Your task to perform on an android device: Go to Wikipedia Image 0: 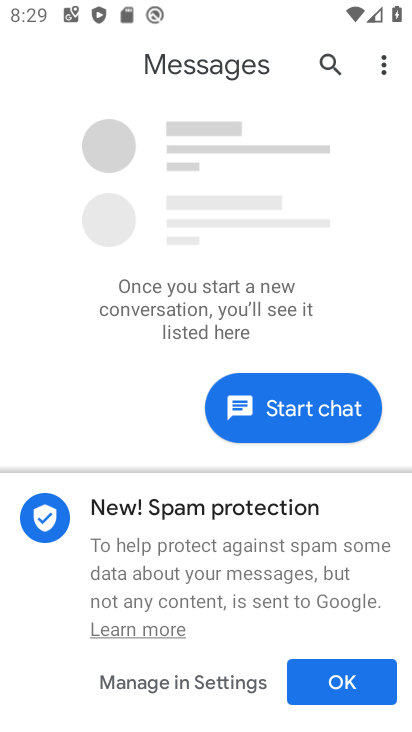
Step 0: press home button
Your task to perform on an android device: Go to Wikipedia Image 1: 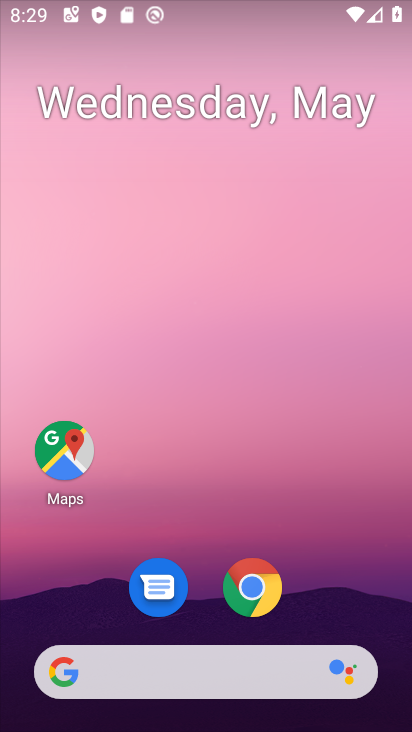
Step 1: click (254, 592)
Your task to perform on an android device: Go to Wikipedia Image 2: 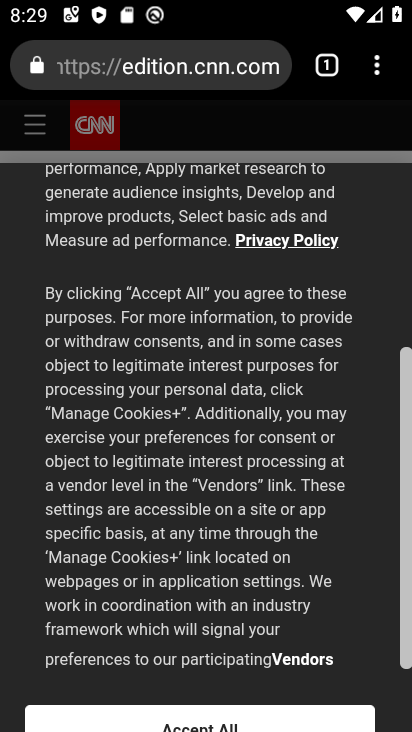
Step 2: click (280, 65)
Your task to perform on an android device: Go to Wikipedia Image 3: 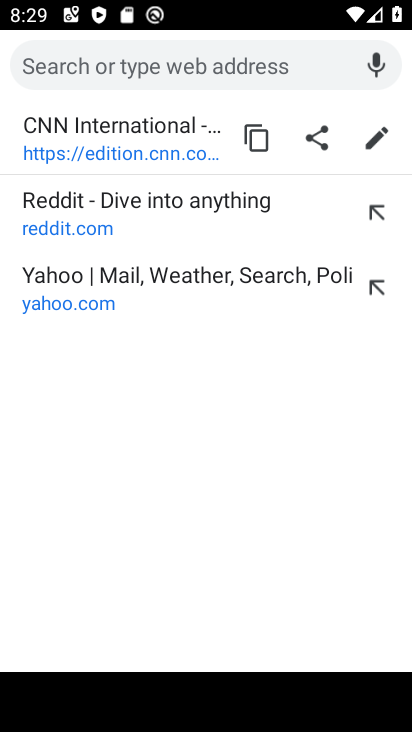
Step 3: type "wikipedia"
Your task to perform on an android device: Go to Wikipedia Image 4: 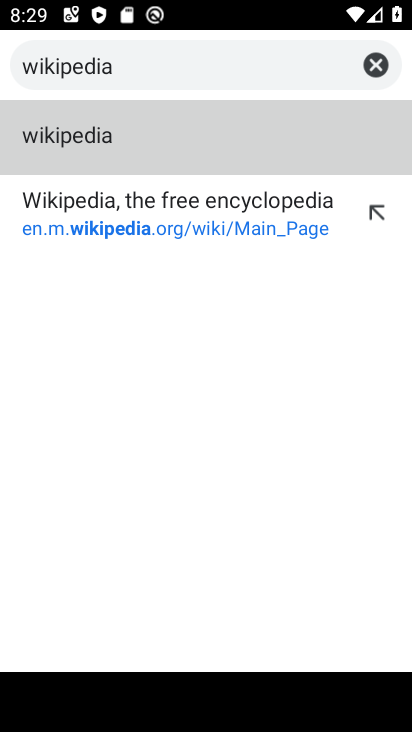
Step 4: click (87, 129)
Your task to perform on an android device: Go to Wikipedia Image 5: 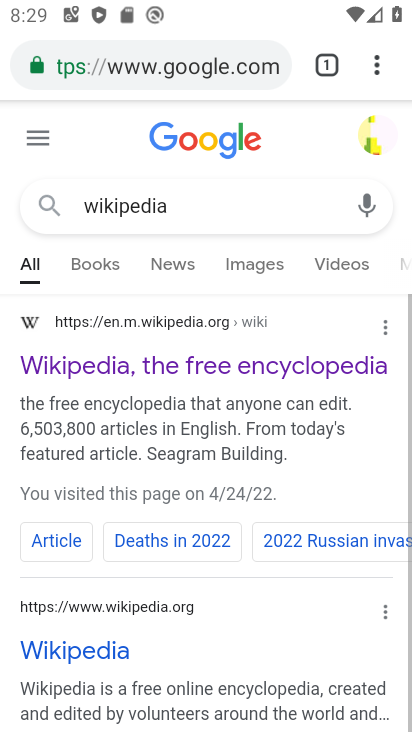
Step 5: click (102, 343)
Your task to perform on an android device: Go to Wikipedia Image 6: 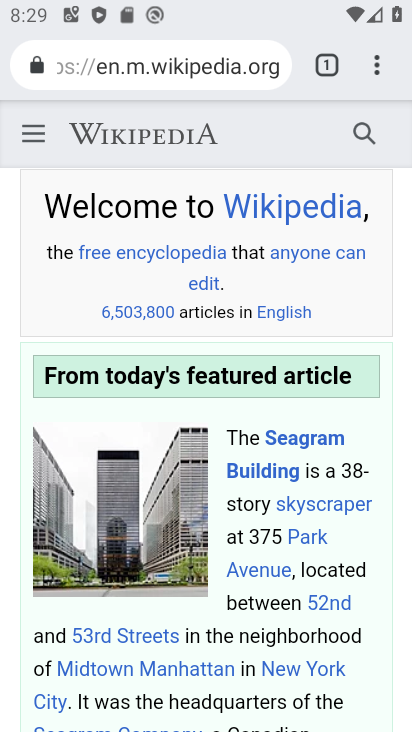
Step 6: click (102, 343)
Your task to perform on an android device: Go to Wikipedia Image 7: 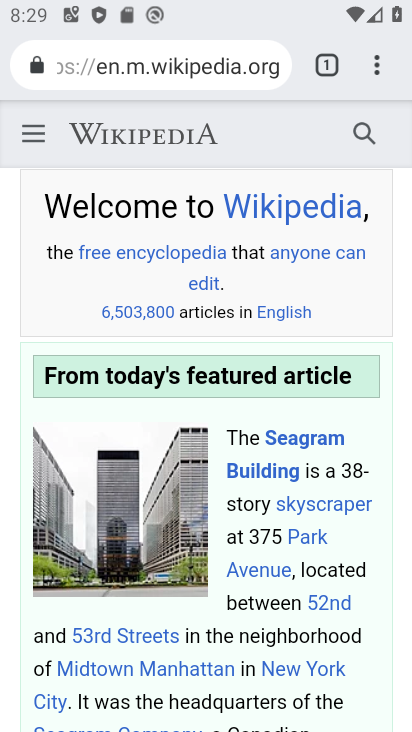
Step 7: click (102, 343)
Your task to perform on an android device: Go to Wikipedia Image 8: 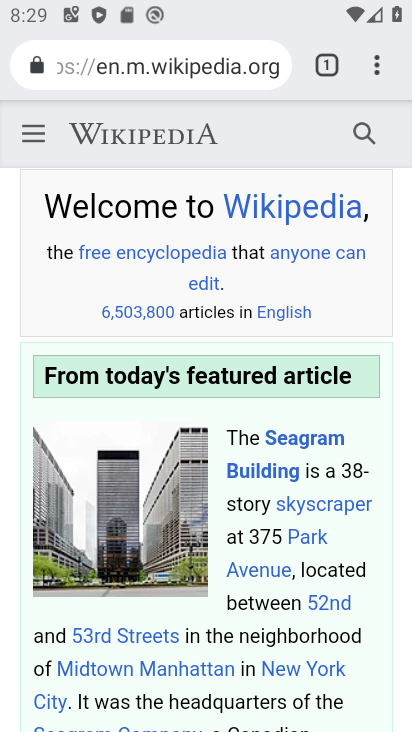
Step 8: task complete